Your task to perform on an android device: What's the weather today? Image 0: 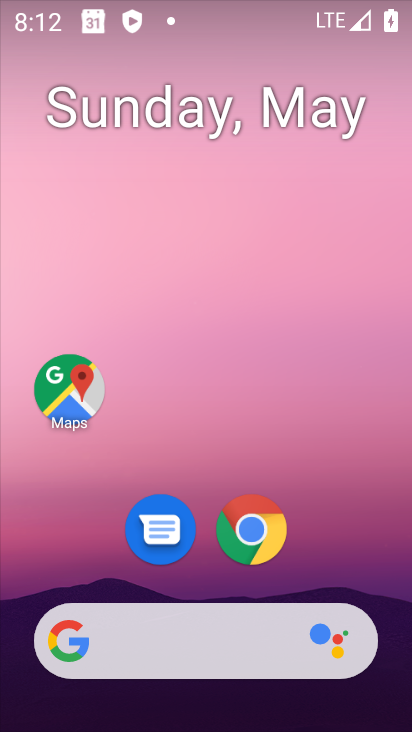
Step 0: click (189, 630)
Your task to perform on an android device: What's the weather today? Image 1: 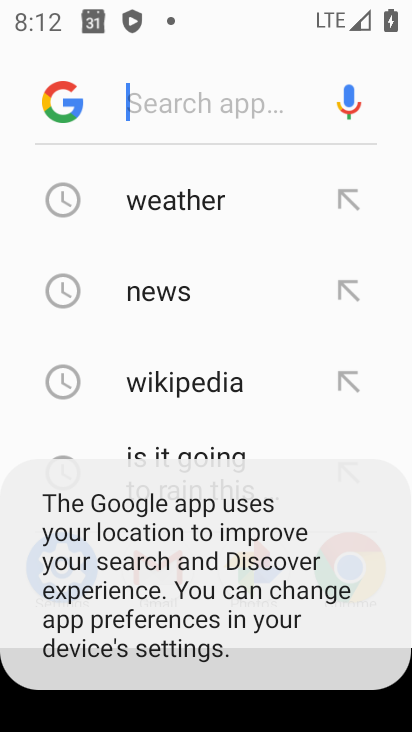
Step 1: click (167, 203)
Your task to perform on an android device: What's the weather today? Image 2: 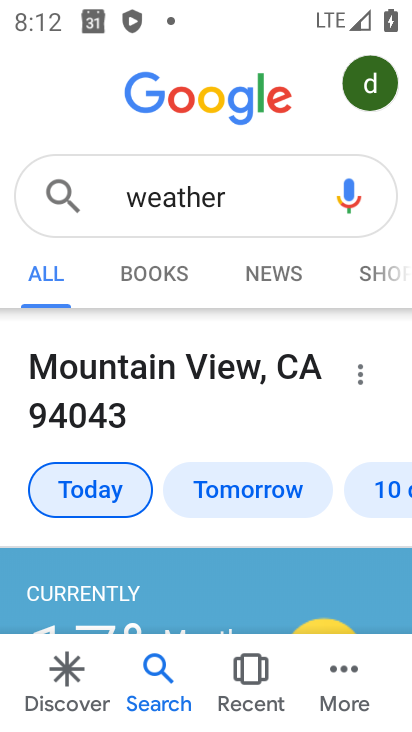
Step 2: task complete